Your task to perform on an android device: turn pop-ups on in chrome Image 0: 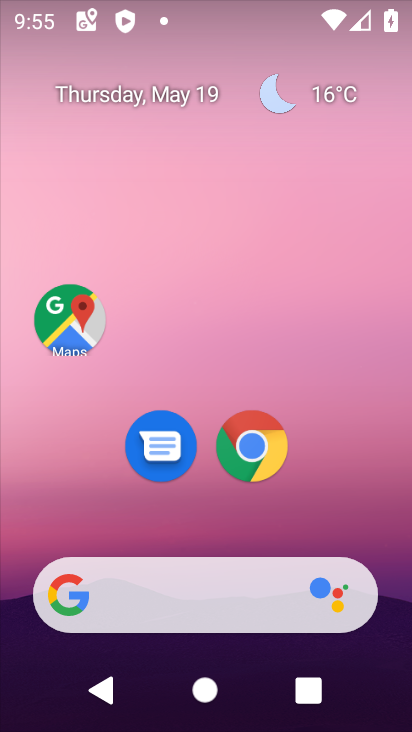
Step 0: click (252, 457)
Your task to perform on an android device: turn pop-ups on in chrome Image 1: 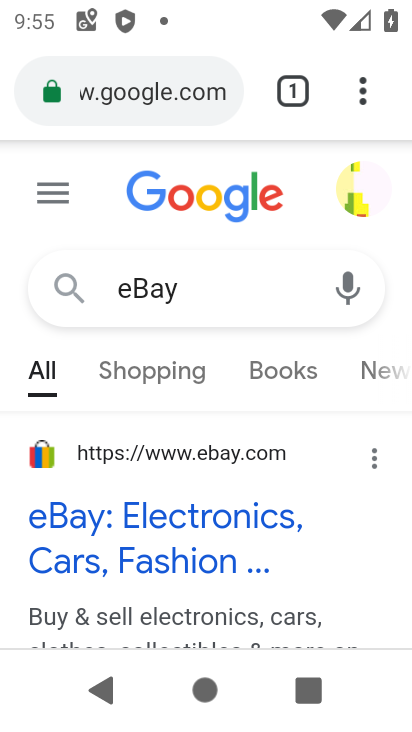
Step 1: click (364, 98)
Your task to perform on an android device: turn pop-ups on in chrome Image 2: 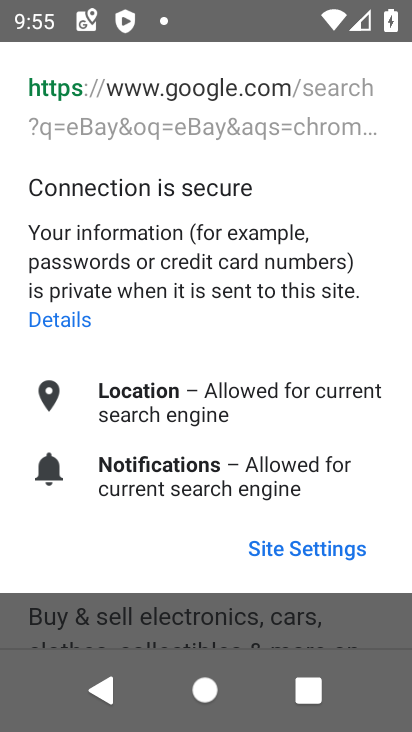
Step 2: click (124, 624)
Your task to perform on an android device: turn pop-ups on in chrome Image 3: 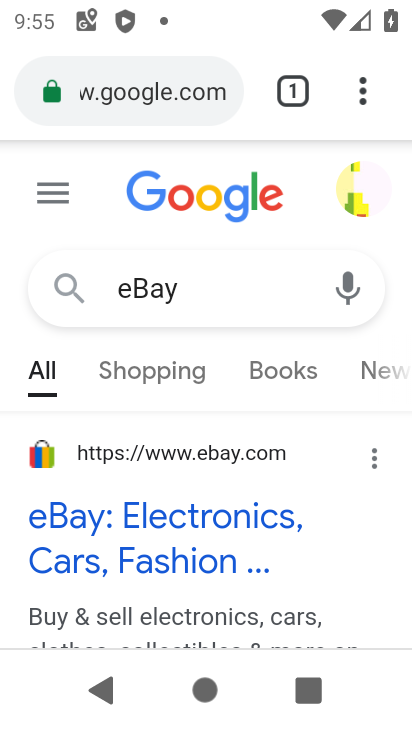
Step 3: click (370, 101)
Your task to perform on an android device: turn pop-ups on in chrome Image 4: 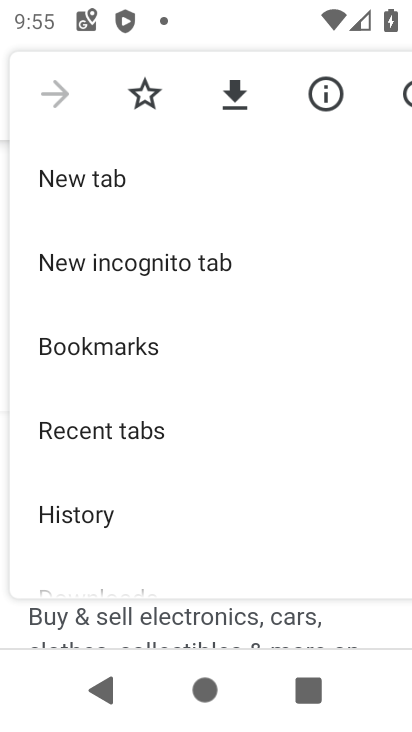
Step 4: drag from (143, 488) to (175, 209)
Your task to perform on an android device: turn pop-ups on in chrome Image 5: 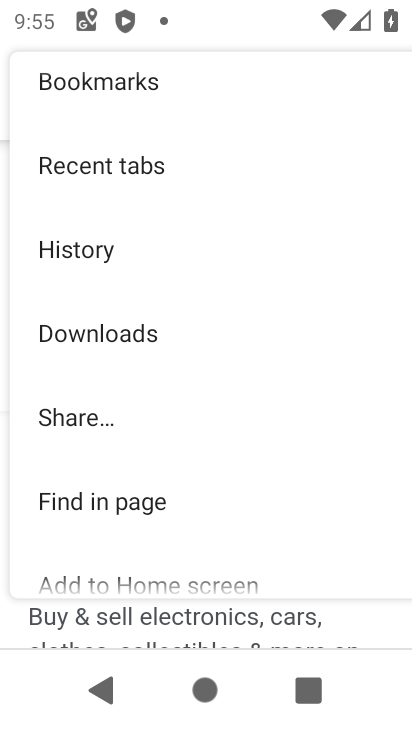
Step 5: drag from (137, 481) to (176, 172)
Your task to perform on an android device: turn pop-ups on in chrome Image 6: 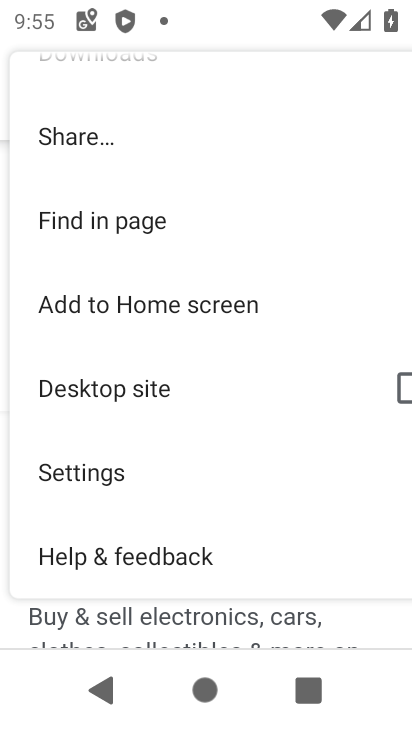
Step 6: click (97, 489)
Your task to perform on an android device: turn pop-ups on in chrome Image 7: 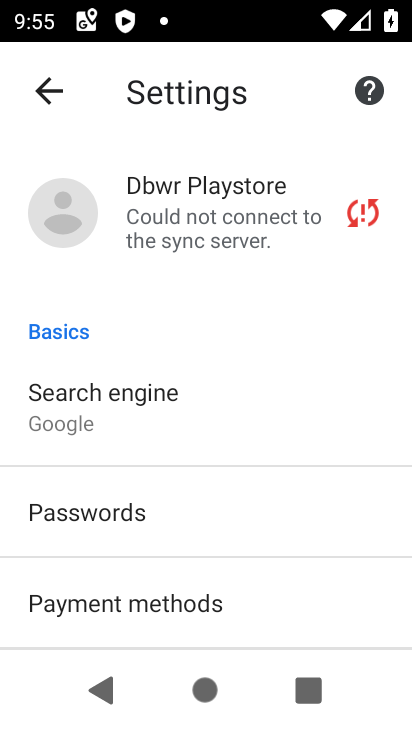
Step 7: drag from (129, 535) to (154, 359)
Your task to perform on an android device: turn pop-ups on in chrome Image 8: 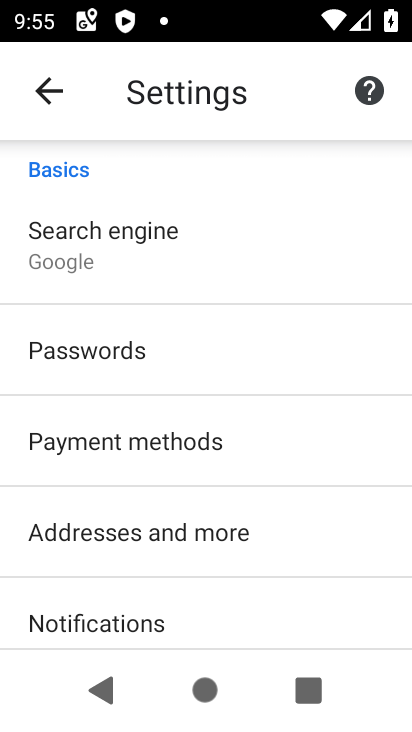
Step 8: drag from (121, 549) to (138, 246)
Your task to perform on an android device: turn pop-ups on in chrome Image 9: 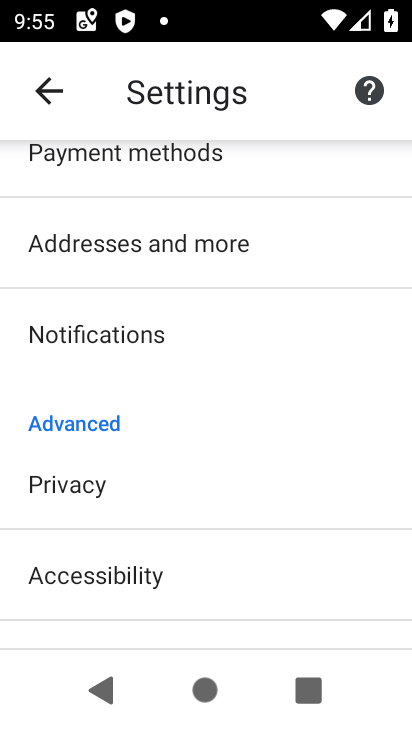
Step 9: drag from (136, 531) to (170, 233)
Your task to perform on an android device: turn pop-ups on in chrome Image 10: 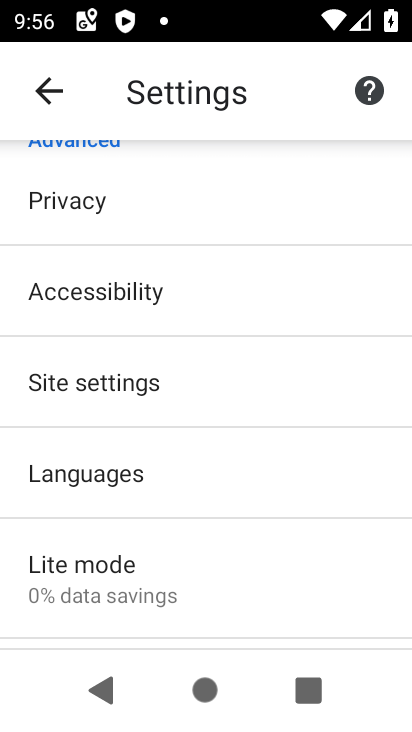
Step 10: drag from (165, 571) to (184, 257)
Your task to perform on an android device: turn pop-ups on in chrome Image 11: 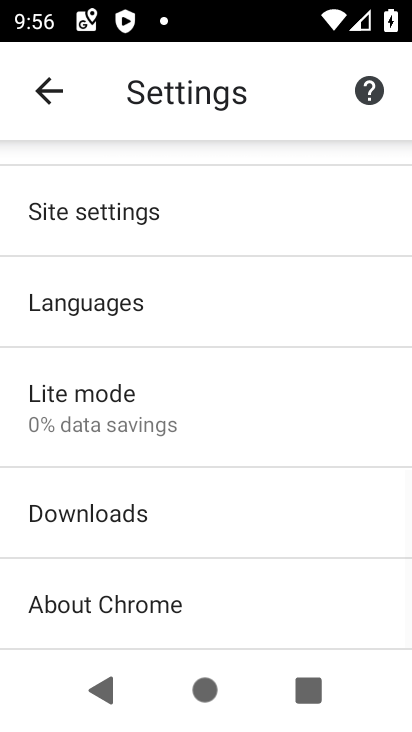
Step 11: drag from (147, 594) to (185, 249)
Your task to perform on an android device: turn pop-ups on in chrome Image 12: 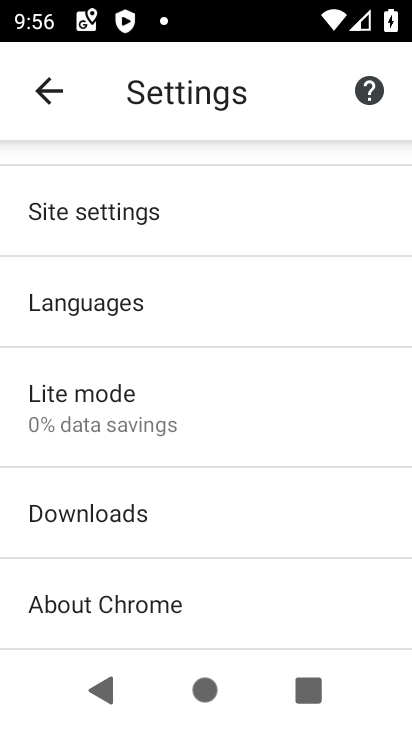
Step 12: click (112, 219)
Your task to perform on an android device: turn pop-ups on in chrome Image 13: 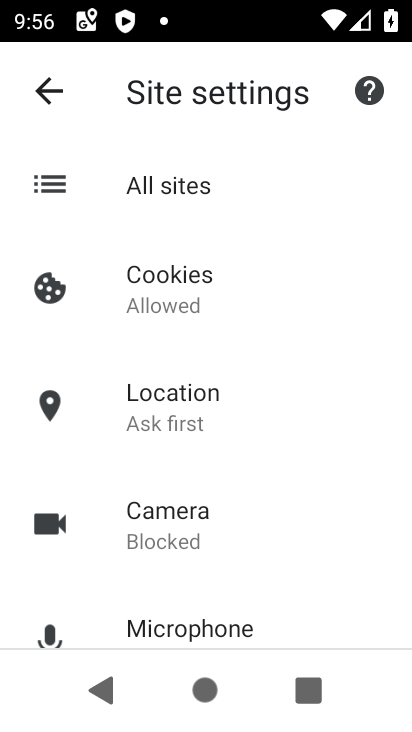
Step 13: drag from (167, 527) to (164, 152)
Your task to perform on an android device: turn pop-ups on in chrome Image 14: 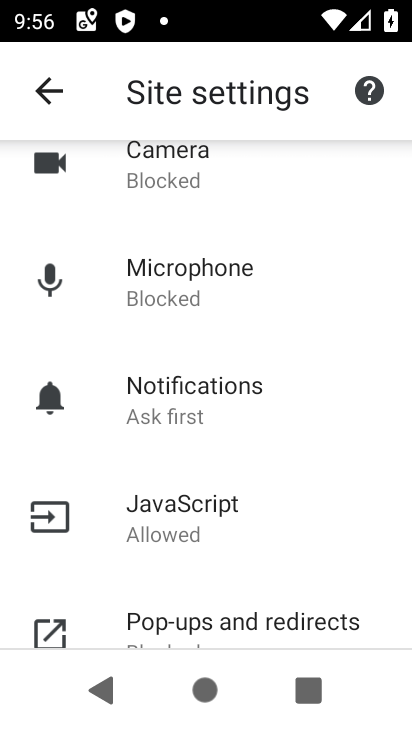
Step 14: drag from (152, 567) to (186, 181)
Your task to perform on an android device: turn pop-ups on in chrome Image 15: 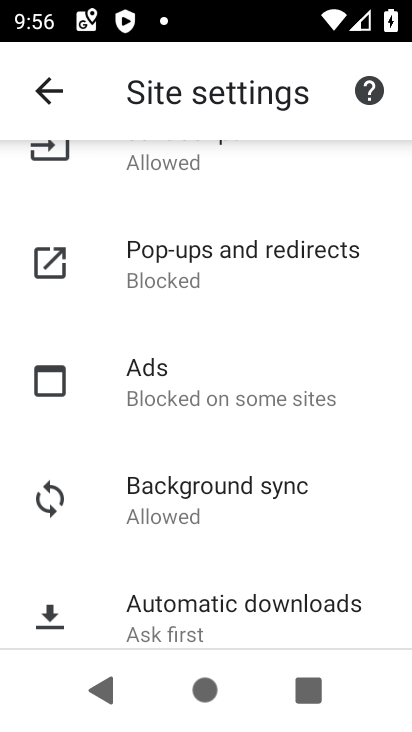
Step 15: click (184, 265)
Your task to perform on an android device: turn pop-ups on in chrome Image 16: 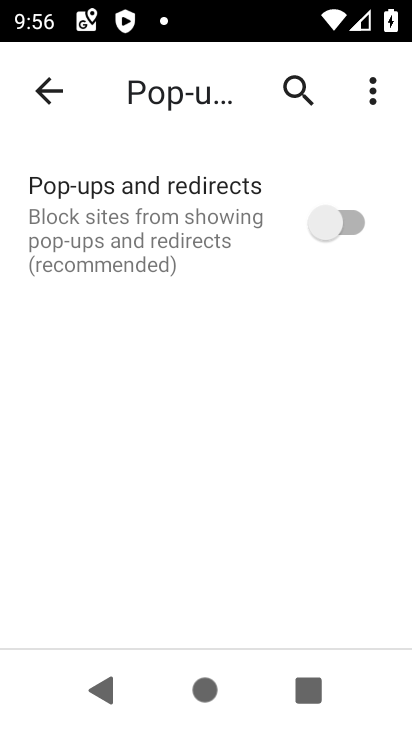
Step 16: click (363, 221)
Your task to perform on an android device: turn pop-ups on in chrome Image 17: 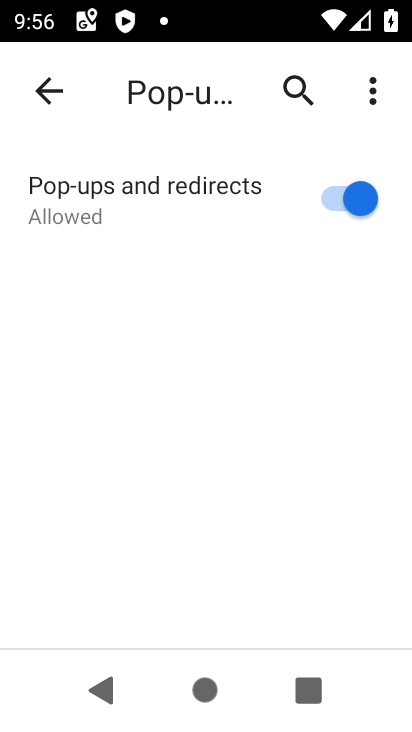
Step 17: task complete